Your task to perform on an android device: Open sound settings Image 0: 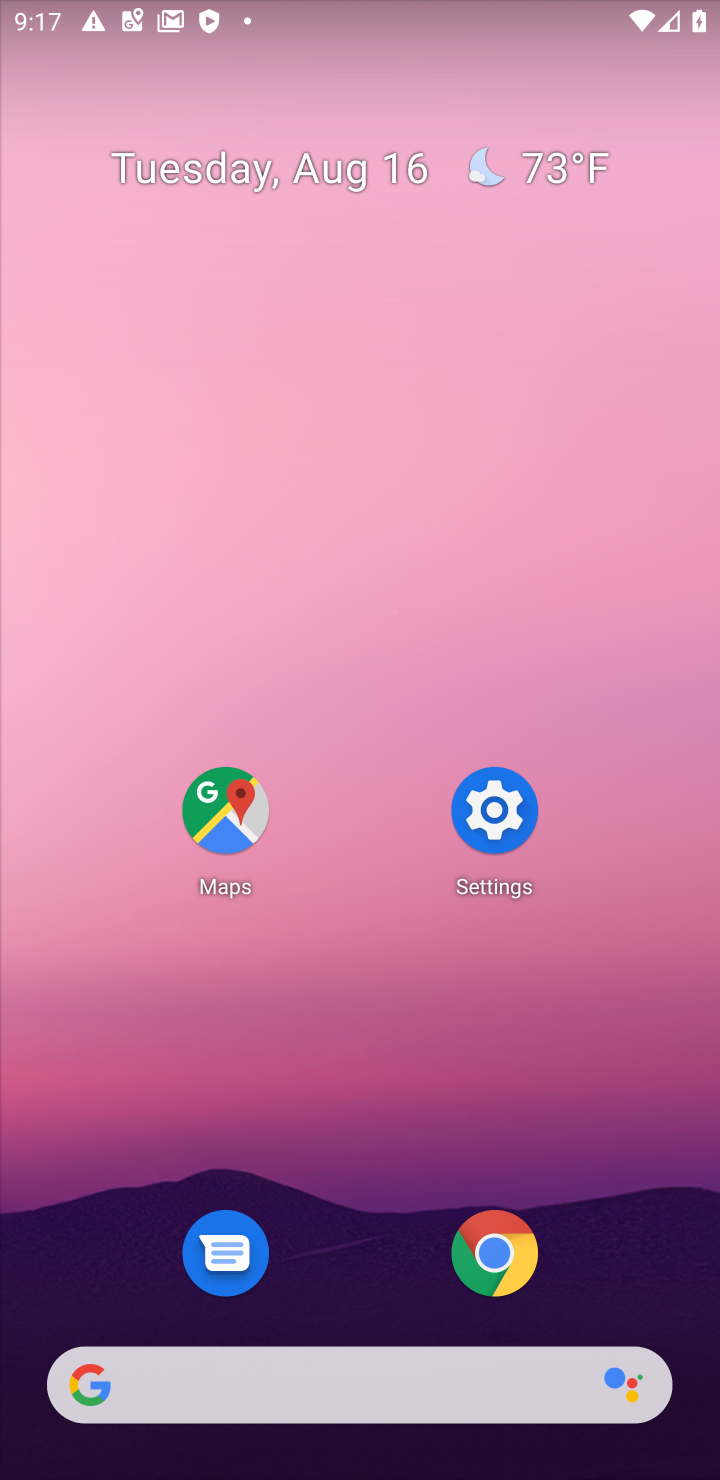
Step 0: click (506, 813)
Your task to perform on an android device: Open sound settings Image 1: 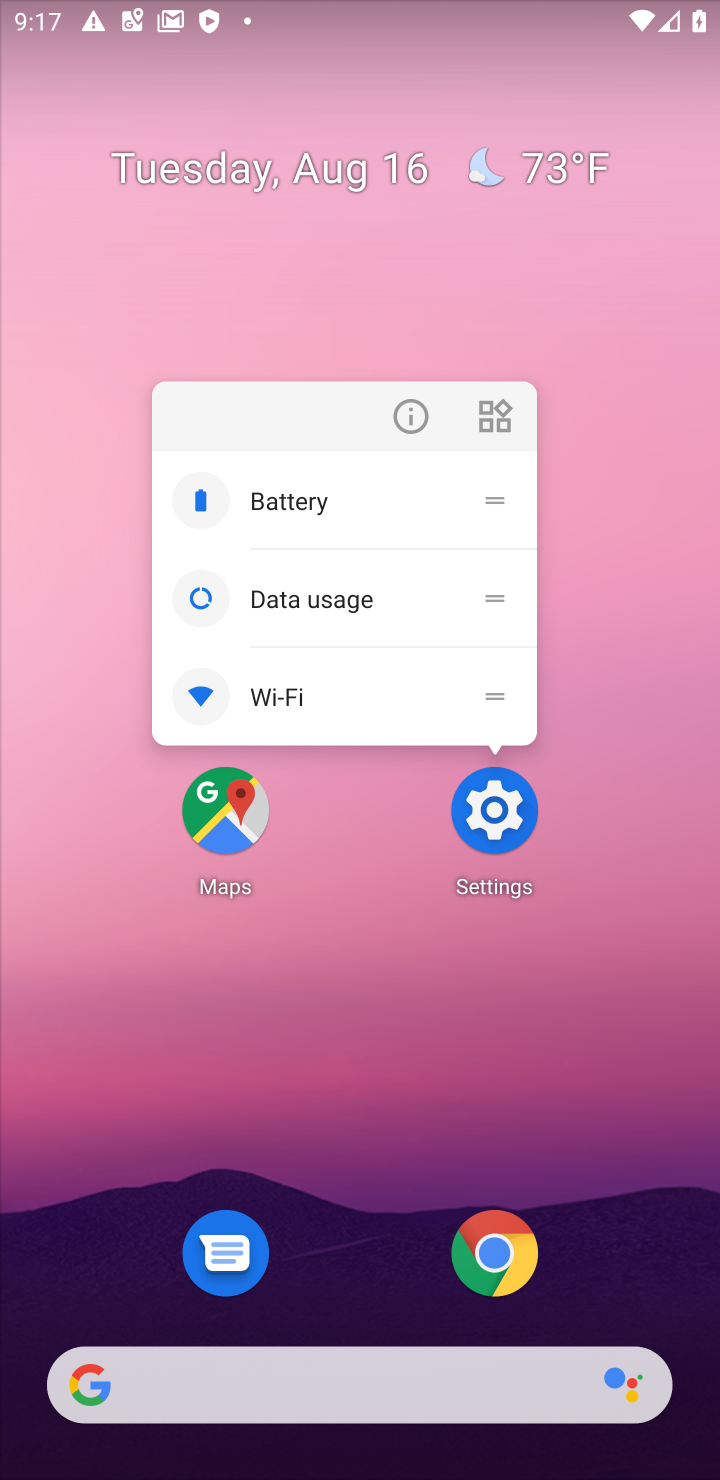
Step 1: click (488, 813)
Your task to perform on an android device: Open sound settings Image 2: 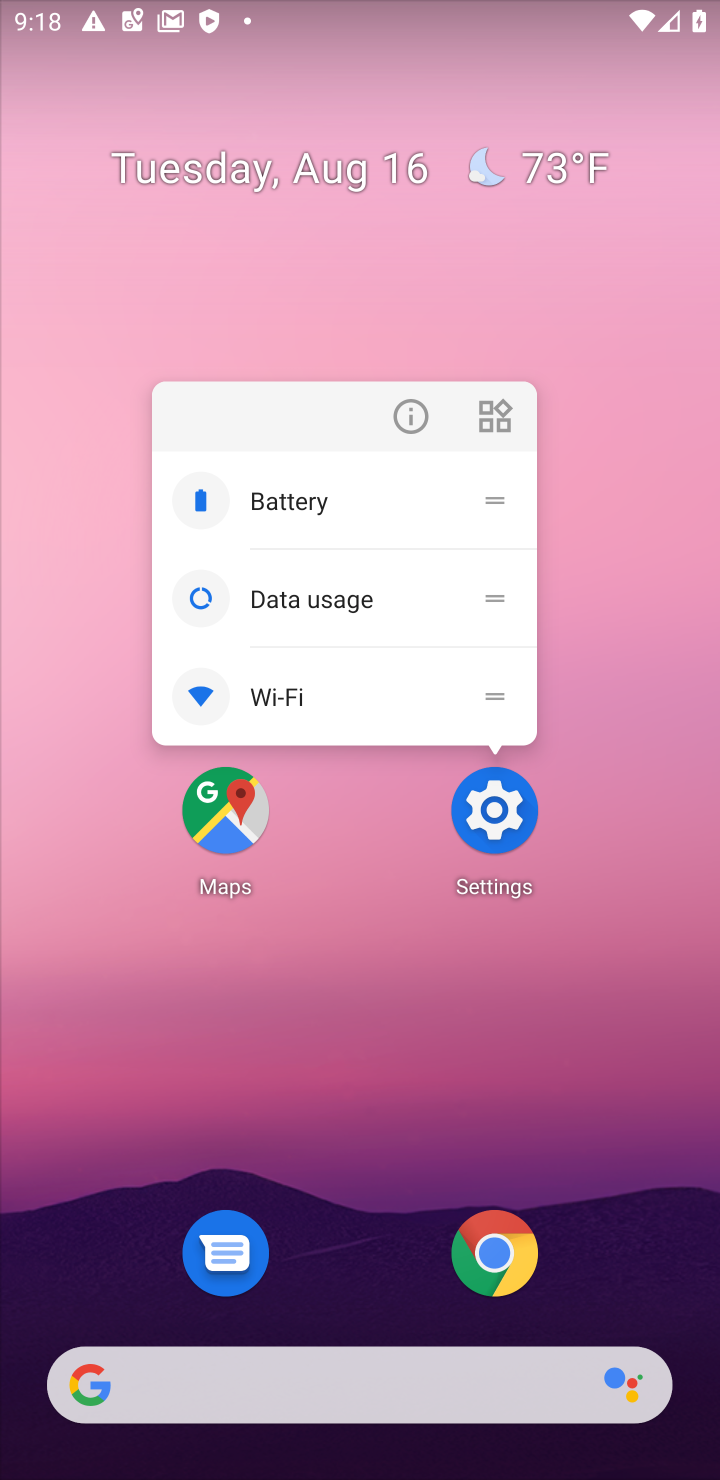
Step 2: click (486, 813)
Your task to perform on an android device: Open sound settings Image 3: 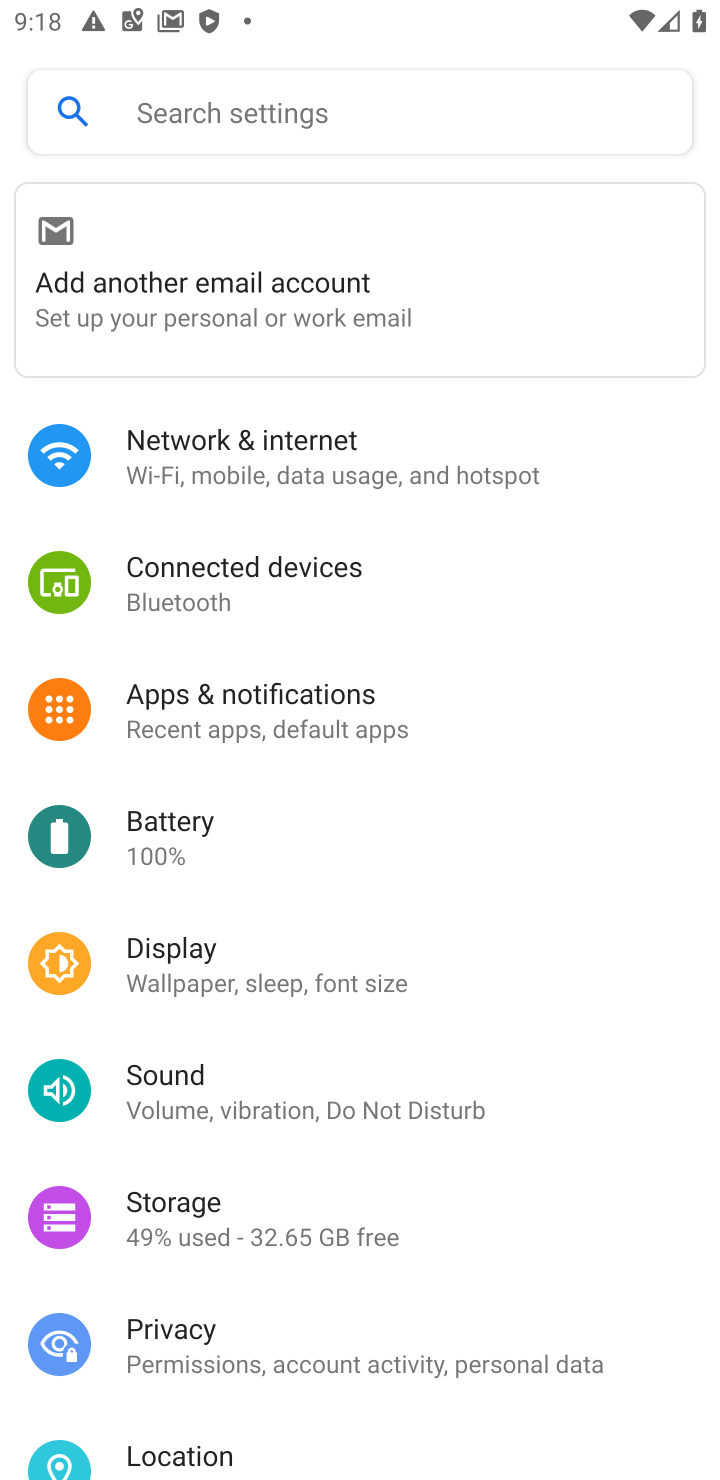
Step 3: click (191, 1078)
Your task to perform on an android device: Open sound settings Image 4: 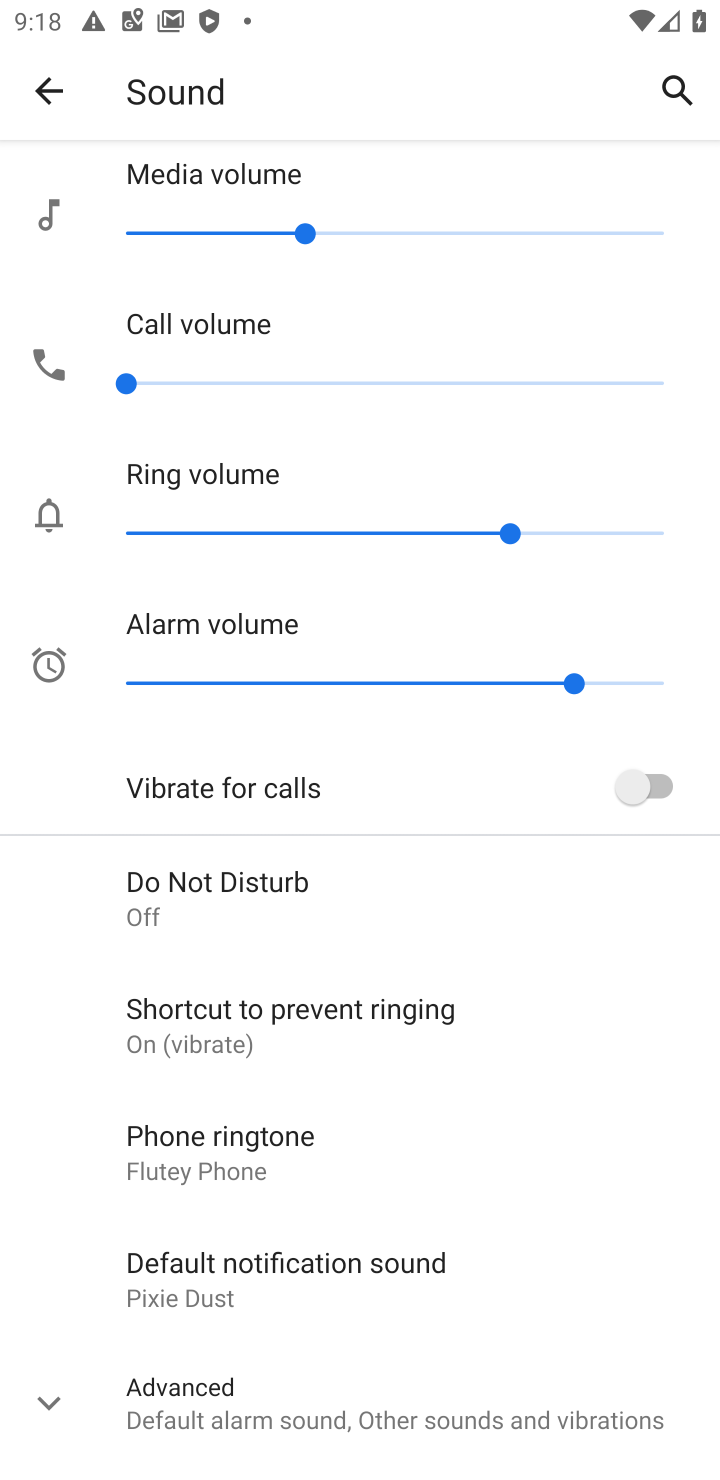
Step 4: task complete